Your task to perform on an android device: turn on wifi Image 0: 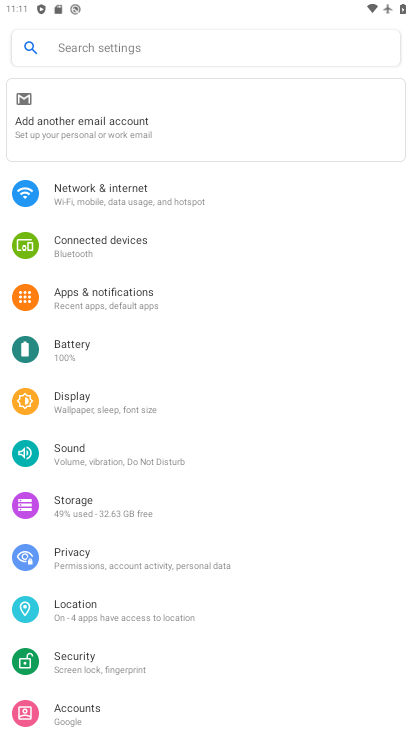
Step 0: press home button
Your task to perform on an android device: turn on wifi Image 1: 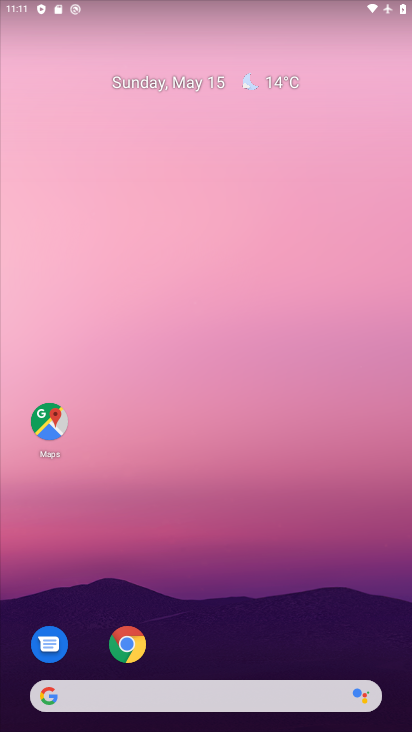
Step 1: drag from (237, 604) to (79, 133)
Your task to perform on an android device: turn on wifi Image 2: 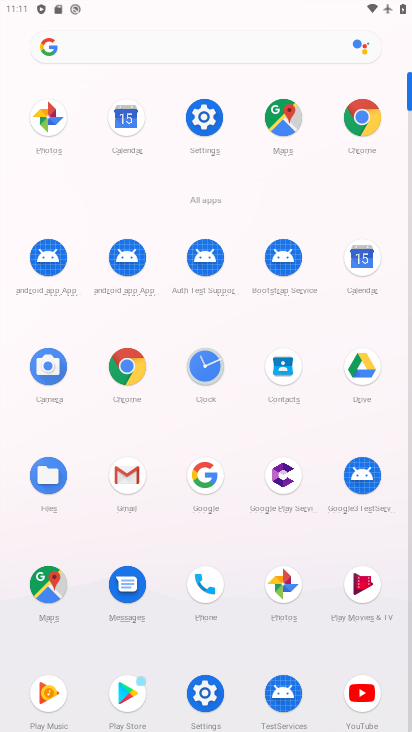
Step 2: click (200, 114)
Your task to perform on an android device: turn on wifi Image 3: 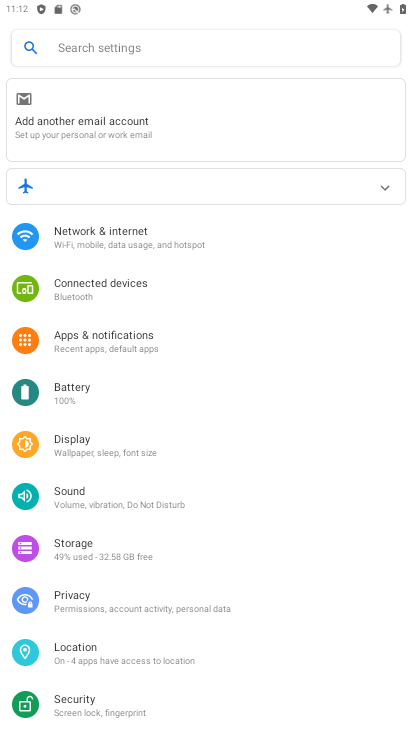
Step 3: click (136, 241)
Your task to perform on an android device: turn on wifi Image 4: 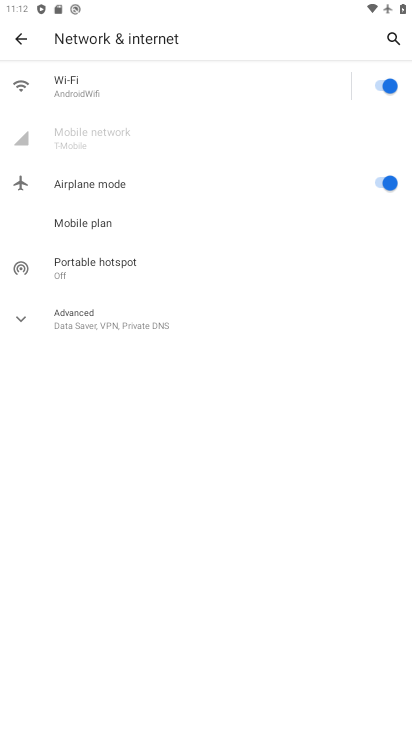
Step 4: task complete